Your task to perform on an android device: turn on bluetooth scan Image 0: 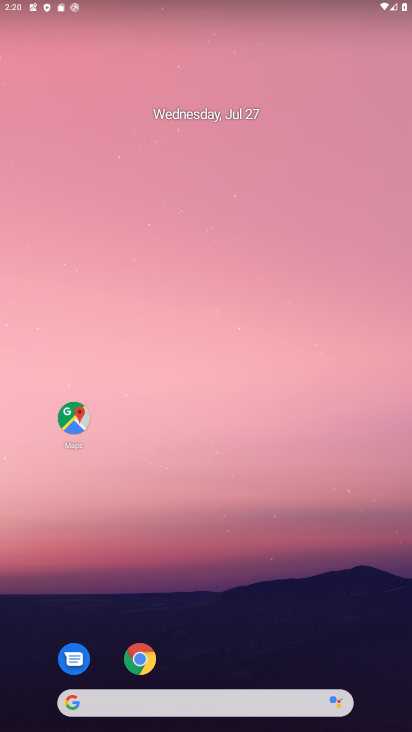
Step 0: drag from (202, 730) to (180, 264)
Your task to perform on an android device: turn on bluetooth scan Image 1: 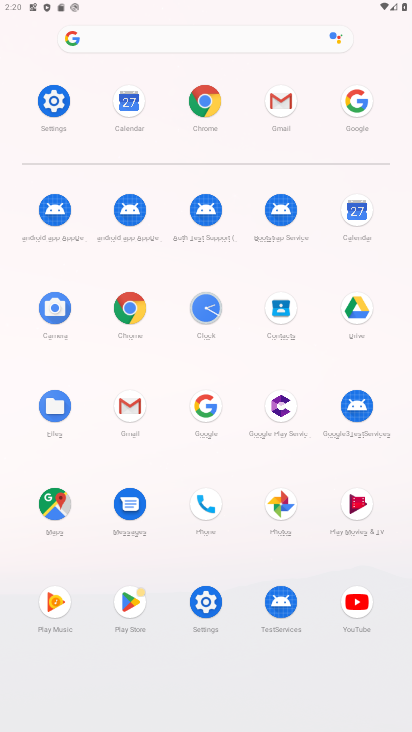
Step 1: click (52, 99)
Your task to perform on an android device: turn on bluetooth scan Image 2: 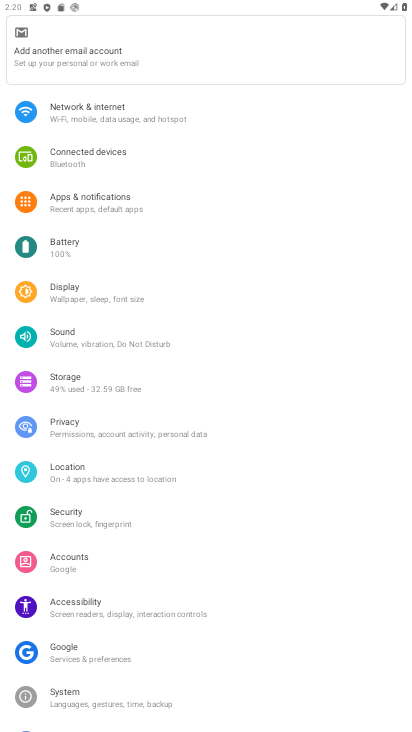
Step 2: click (73, 480)
Your task to perform on an android device: turn on bluetooth scan Image 3: 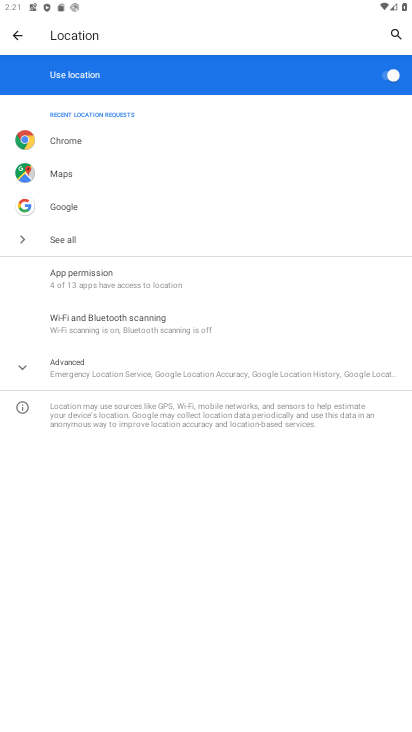
Step 3: click (97, 322)
Your task to perform on an android device: turn on bluetooth scan Image 4: 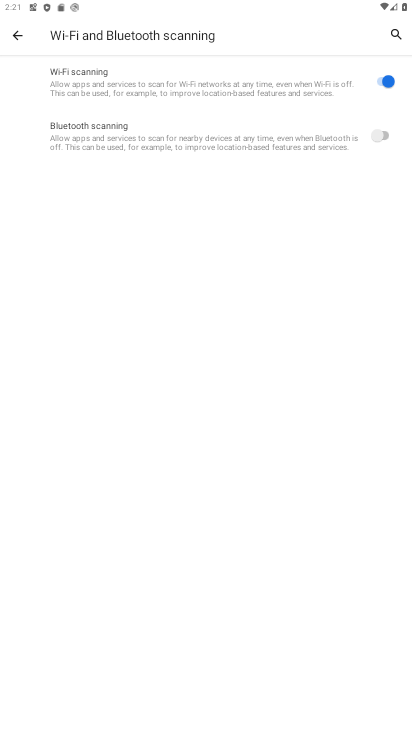
Step 4: click (383, 134)
Your task to perform on an android device: turn on bluetooth scan Image 5: 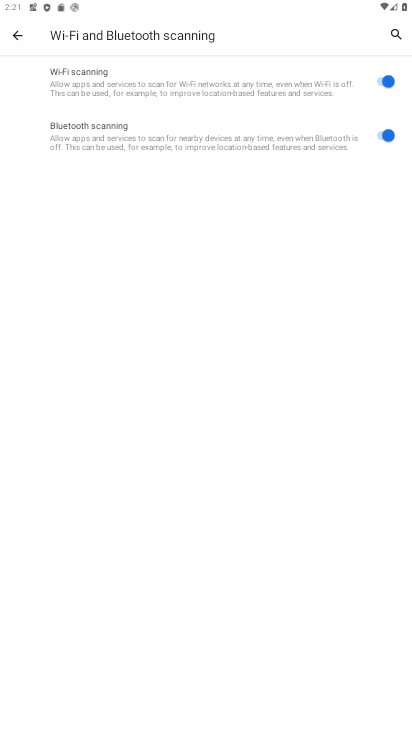
Step 5: task complete